Your task to perform on an android device: see creations saved in the google photos Image 0: 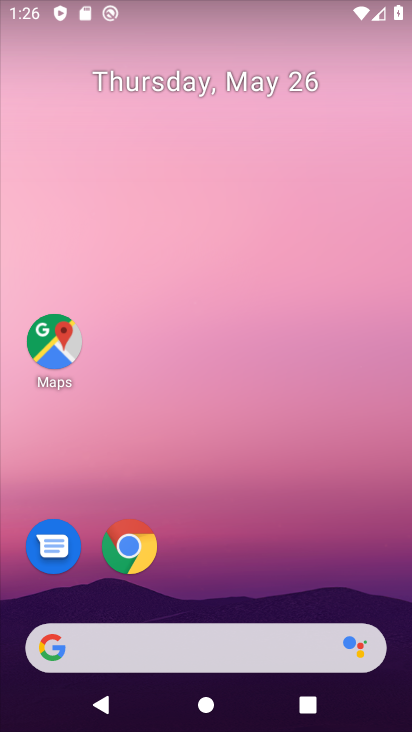
Step 0: drag from (193, 642) to (322, 215)
Your task to perform on an android device: see creations saved in the google photos Image 1: 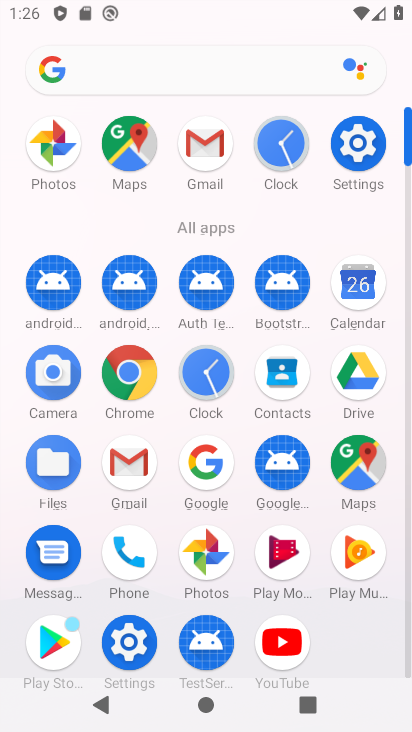
Step 1: click (219, 574)
Your task to perform on an android device: see creations saved in the google photos Image 2: 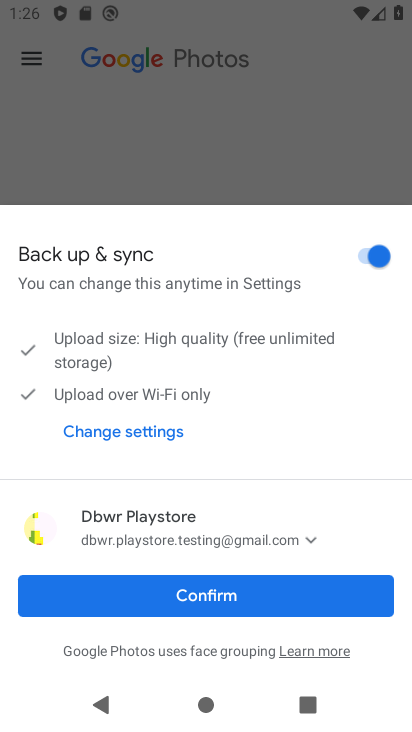
Step 2: click (235, 610)
Your task to perform on an android device: see creations saved in the google photos Image 3: 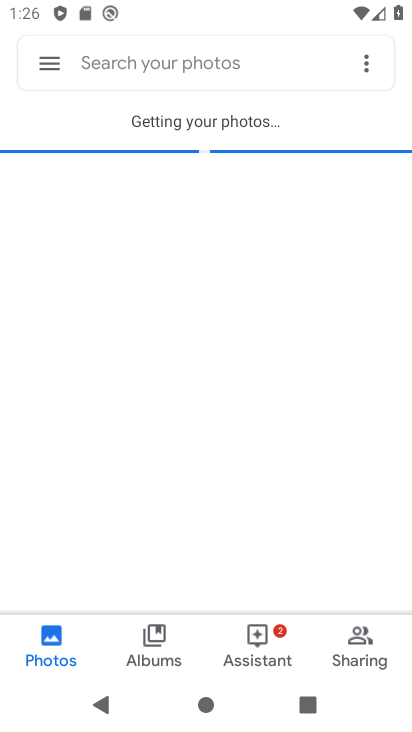
Step 3: click (223, 57)
Your task to perform on an android device: see creations saved in the google photos Image 4: 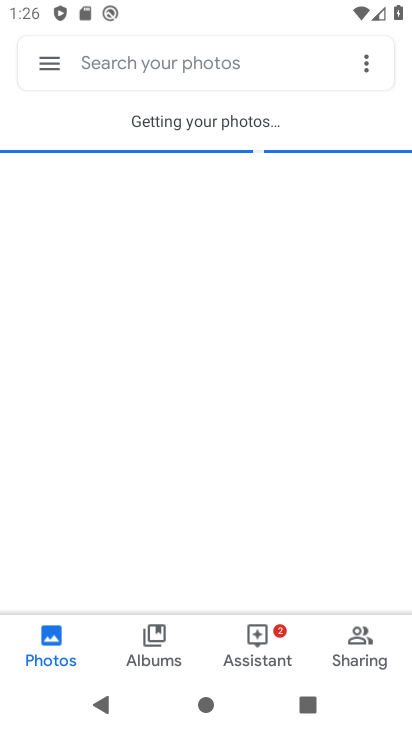
Step 4: click (222, 63)
Your task to perform on an android device: see creations saved in the google photos Image 5: 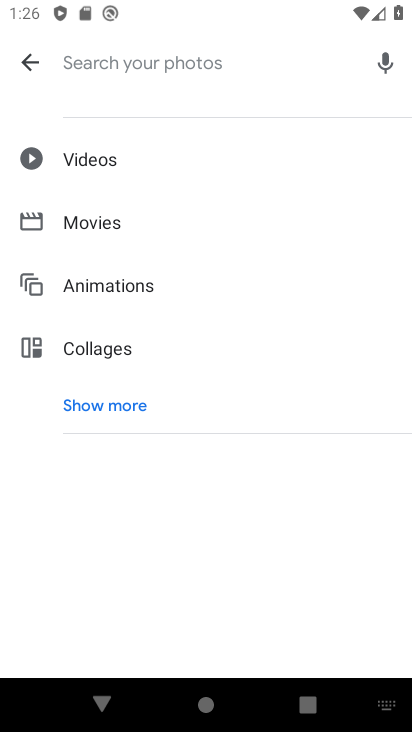
Step 5: click (105, 409)
Your task to perform on an android device: see creations saved in the google photos Image 6: 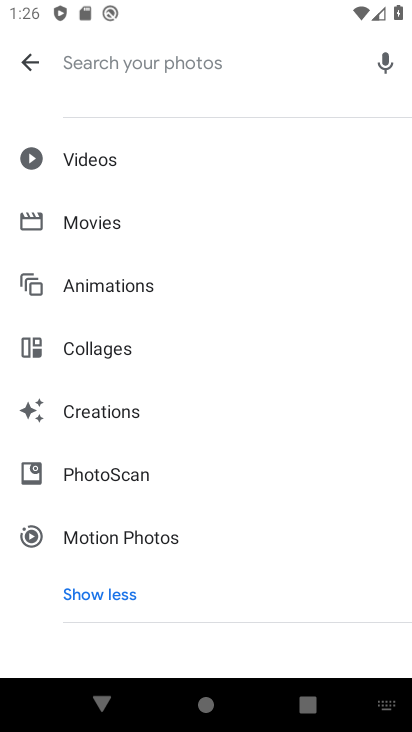
Step 6: click (180, 405)
Your task to perform on an android device: see creations saved in the google photos Image 7: 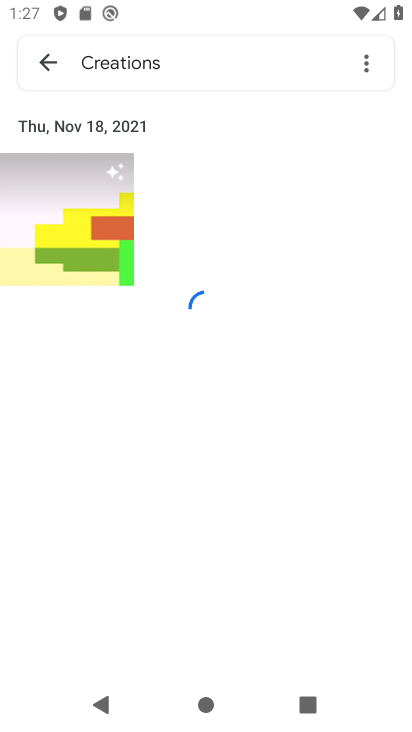
Step 7: task complete